Your task to perform on an android device: Go to CNN.com Image 0: 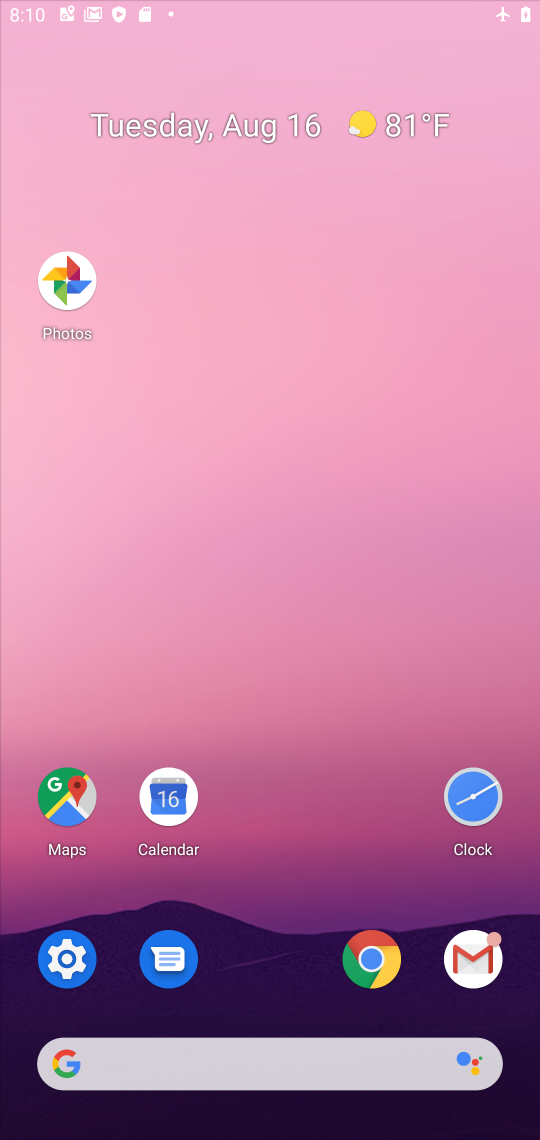
Step 0: press home button
Your task to perform on an android device: Go to CNN.com Image 1: 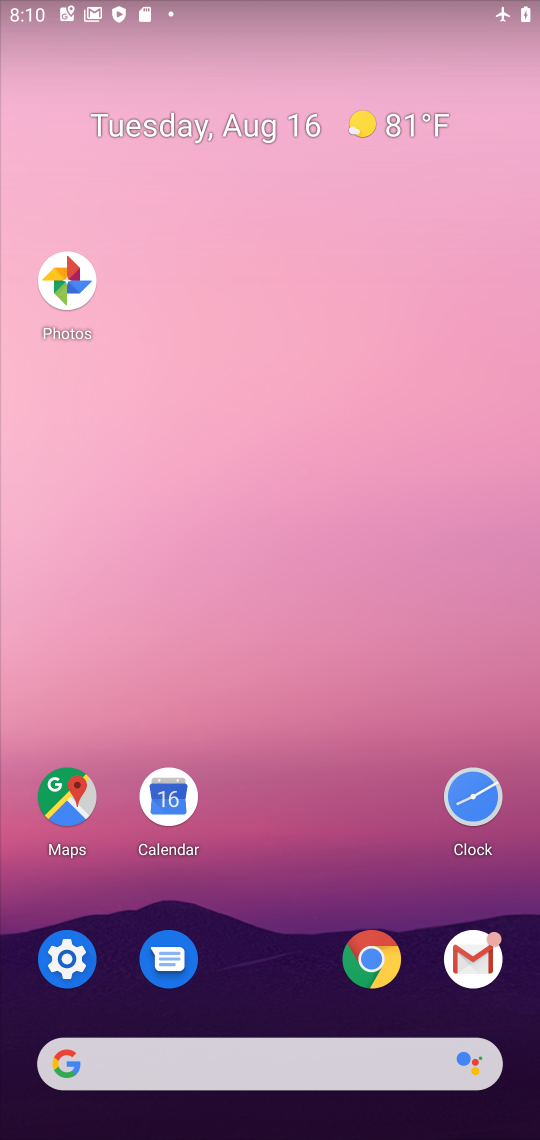
Step 1: click (268, 1059)
Your task to perform on an android device: Go to CNN.com Image 2: 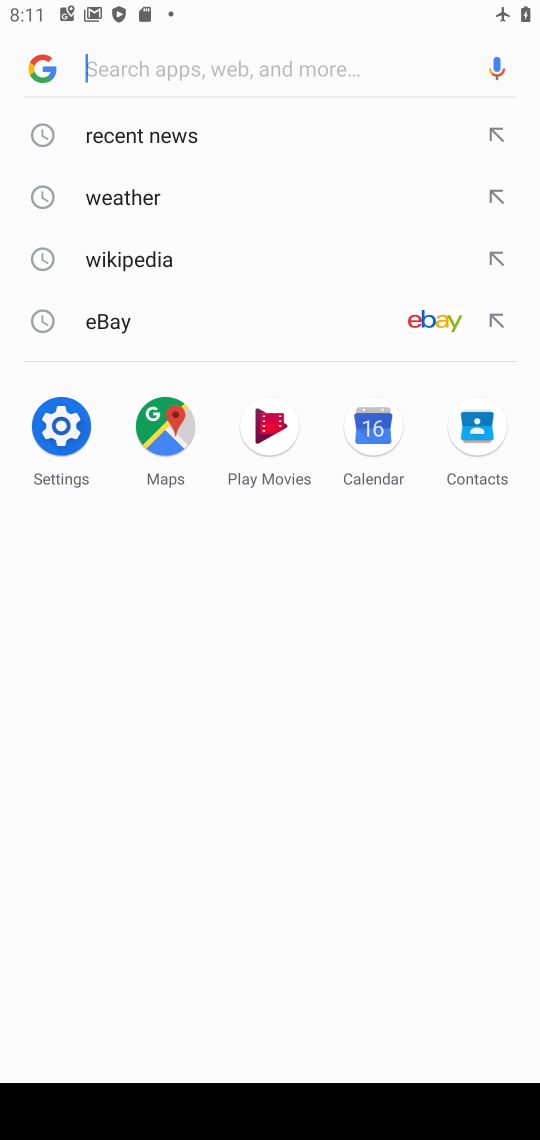
Step 2: type "cnn.com"
Your task to perform on an android device: Go to CNN.com Image 3: 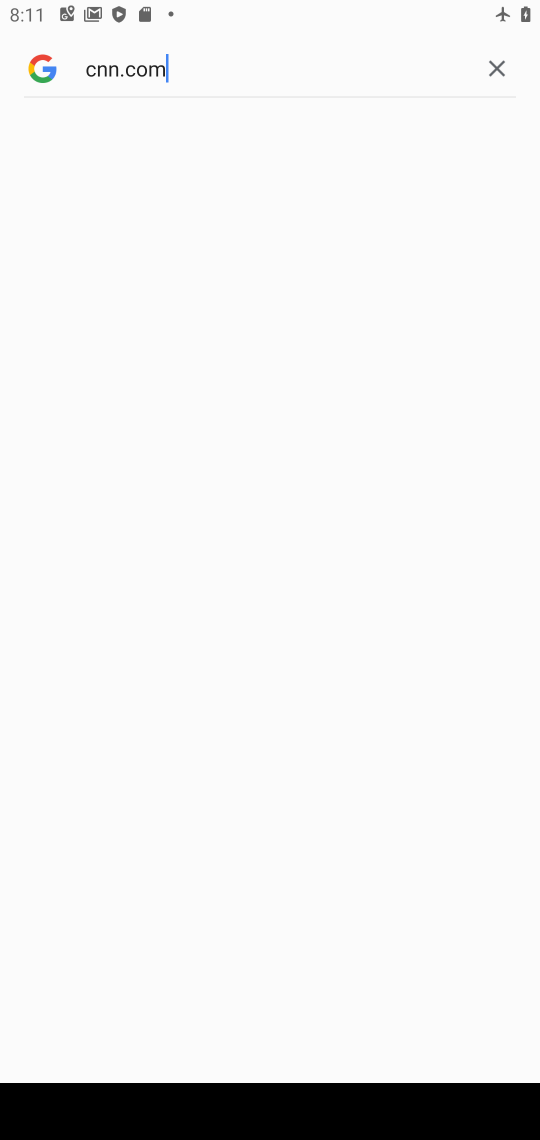
Step 3: task complete